Your task to perform on an android device: Go to Wikipedia Image 0: 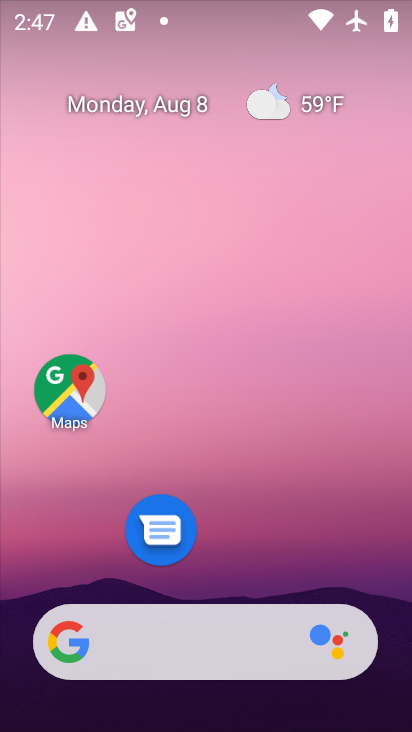
Step 0: drag from (227, 329) to (227, 113)
Your task to perform on an android device: Go to Wikipedia Image 1: 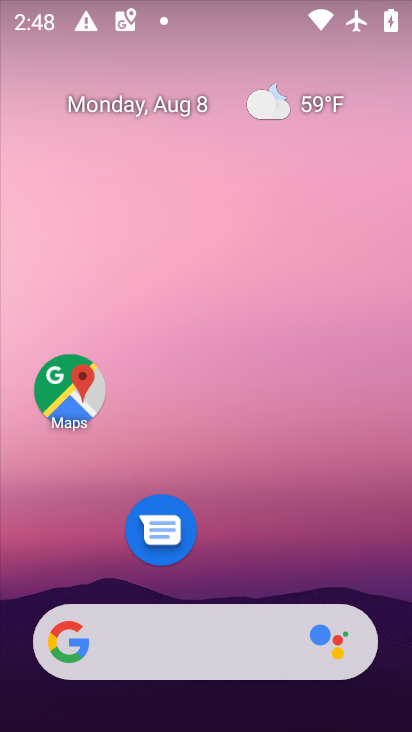
Step 1: drag from (220, 721) to (204, 235)
Your task to perform on an android device: Go to Wikipedia Image 2: 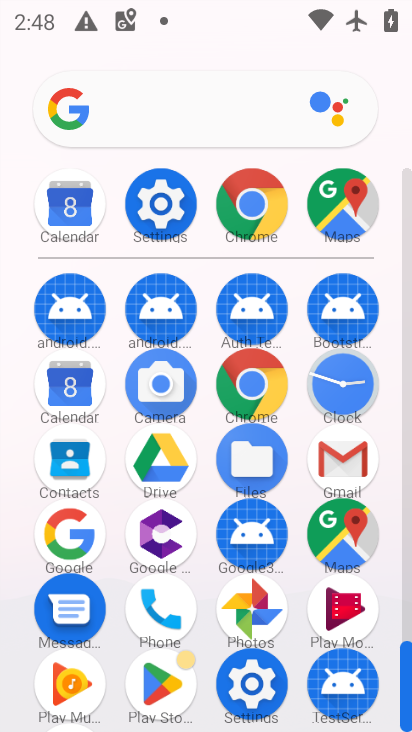
Step 2: click (243, 382)
Your task to perform on an android device: Go to Wikipedia Image 3: 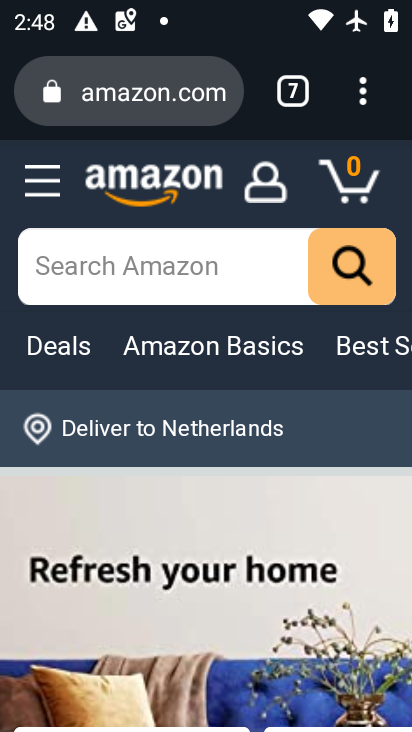
Step 3: drag from (365, 104) to (96, 182)
Your task to perform on an android device: Go to Wikipedia Image 4: 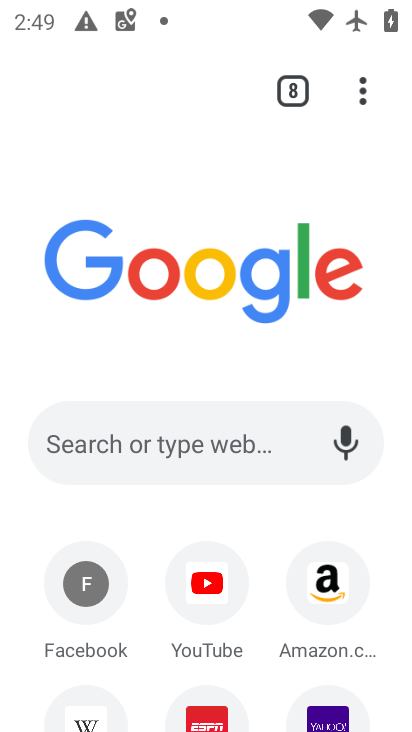
Step 4: click (84, 713)
Your task to perform on an android device: Go to Wikipedia Image 5: 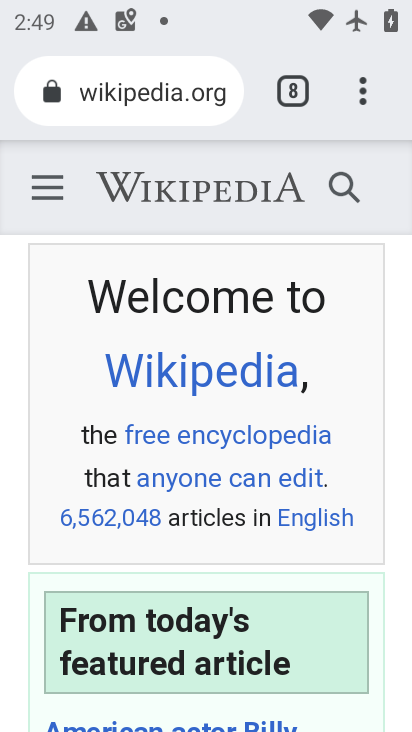
Step 5: task complete